Your task to perform on an android device: Open the web browser Image 0: 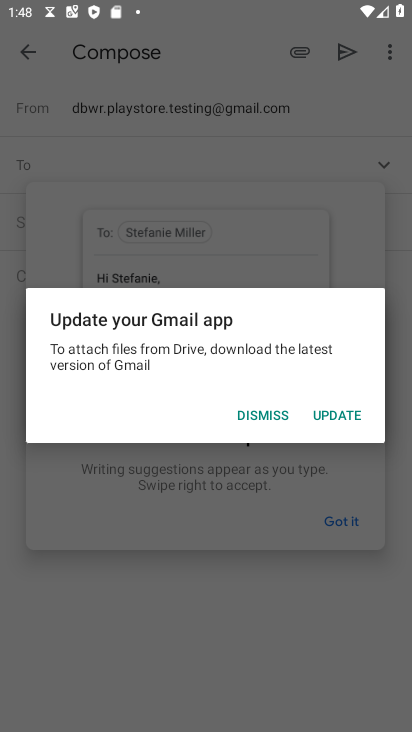
Step 0: press home button
Your task to perform on an android device: Open the web browser Image 1: 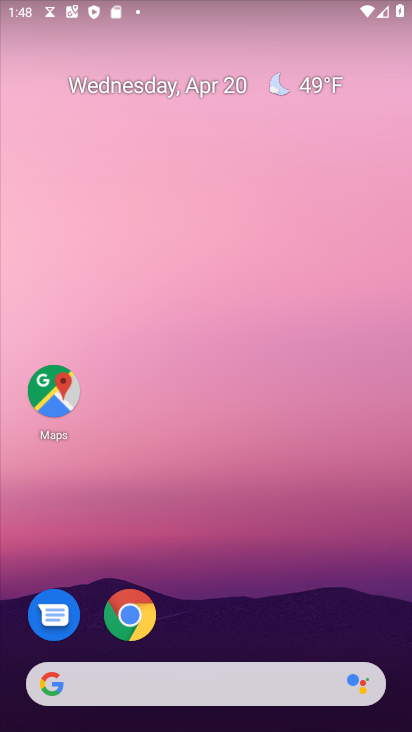
Step 1: task complete